Your task to perform on an android device: Open Youtube and go to the subscriptions tab Image 0: 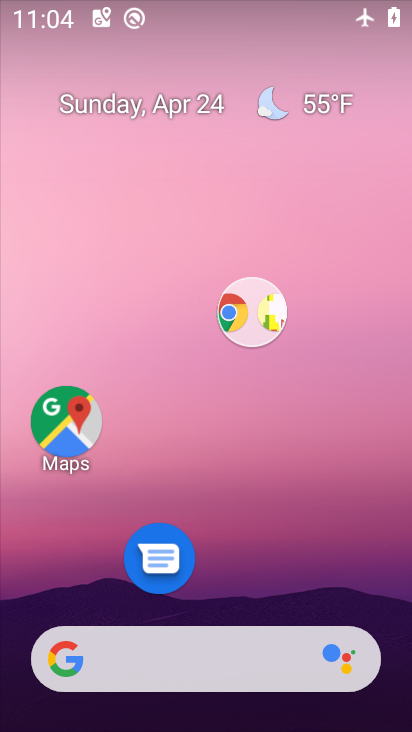
Step 0: drag from (307, 700) to (226, 156)
Your task to perform on an android device: Open Youtube and go to the subscriptions tab Image 1: 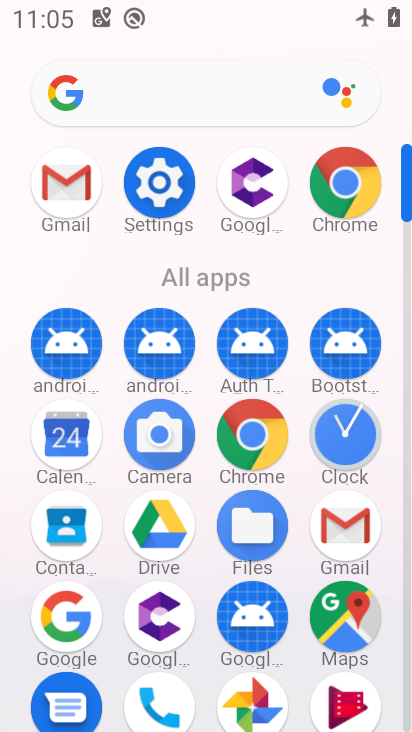
Step 1: drag from (388, 594) to (343, 80)
Your task to perform on an android device: Open Youtube and go to the subscriptions tab Image 2: 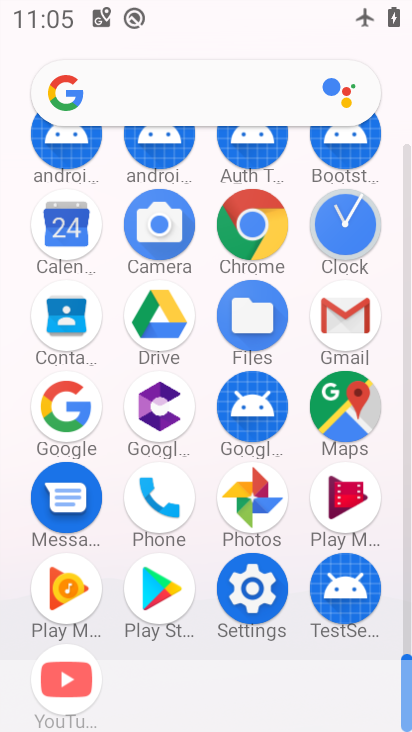
Step 2: drag from (115, 588) to (77, 78)
Your task to perform on an android device: Open Youtube and go to the subscriptions tab Image 3: 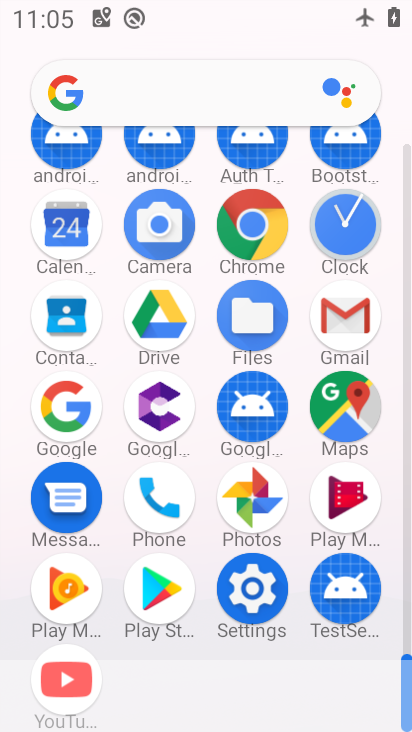
Step 3: click (69, 652)
Your task to perform on an android device: Open Youtube and go to the subscriptions tab Image 4: 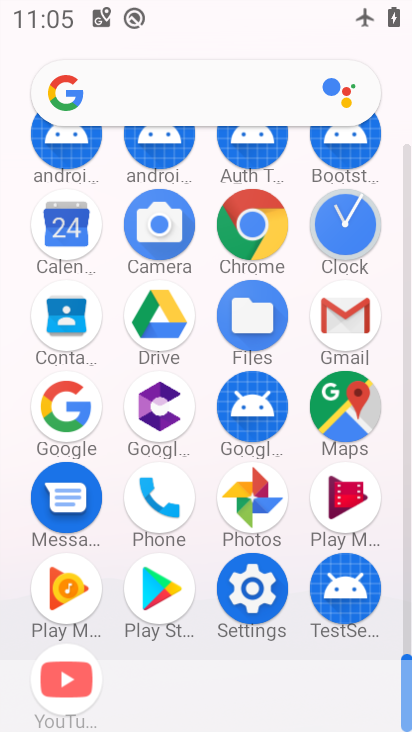
Step 4: click (69, 652)
Your task to perform on an android device: Open Youtube and go to the subscriptions tab Image 5: 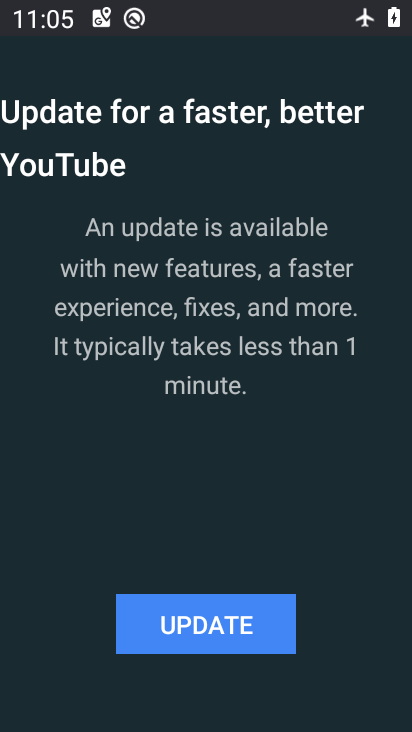
Step 5: click (211, 619)
Your task to perform on an android device: Open Youtube and go to the subscriptions tab Image 6: 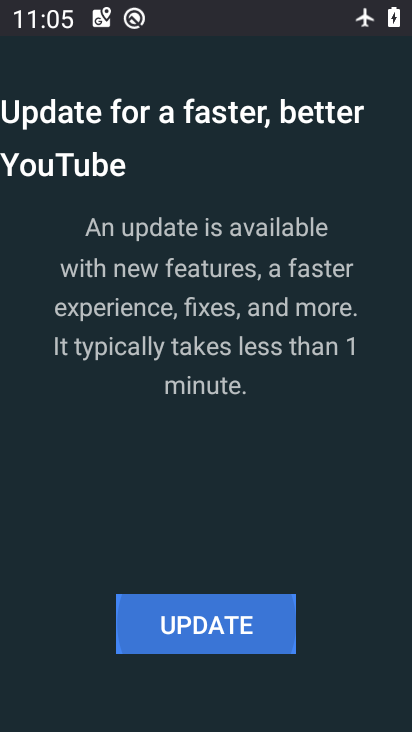
Step 6: click (211, 619)
Your task to perform on an android device: Open Youtube and go to the subscriptions tab Image 7: 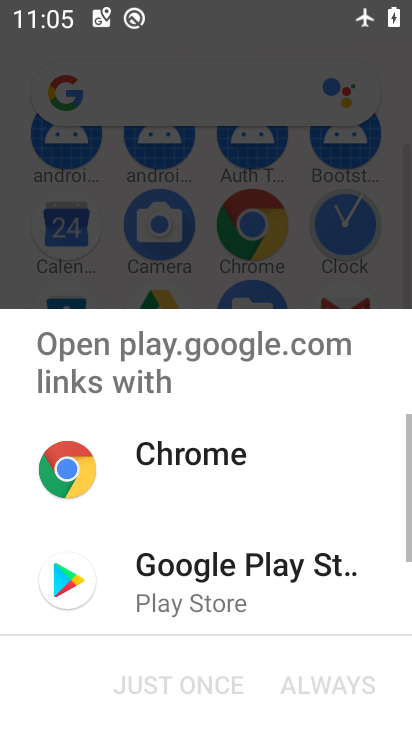
Step 7: click (203, 582)
Your task to perform on an android device: Open Youtube and go to the subscriptions tab Image 8: 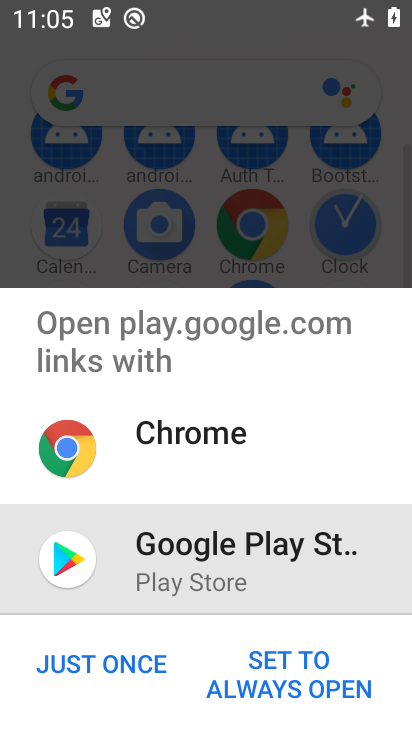
Step 8: click (92, 560)
Your task to perform on an android device: Open Youtube and go to the subscriptions tab Image 9: 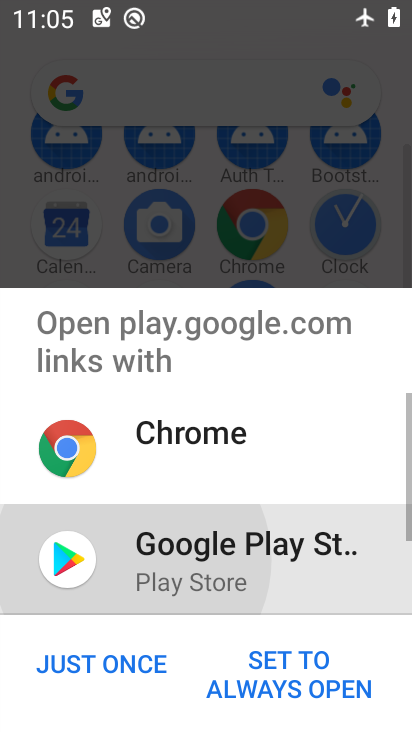
Step 9: click (92, 560)
Your task to perform on an android device: Open Youtube and go to the subscriptions tab Image 10: 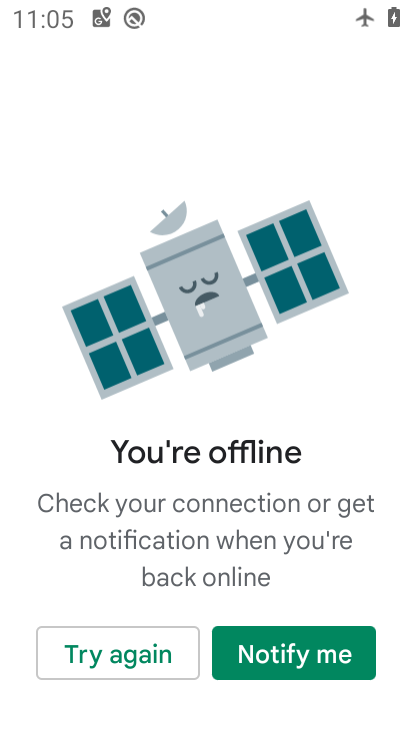
Step 10: task complete